Your task to perform on an android device: visit the assistant section in the google photos Image 0: 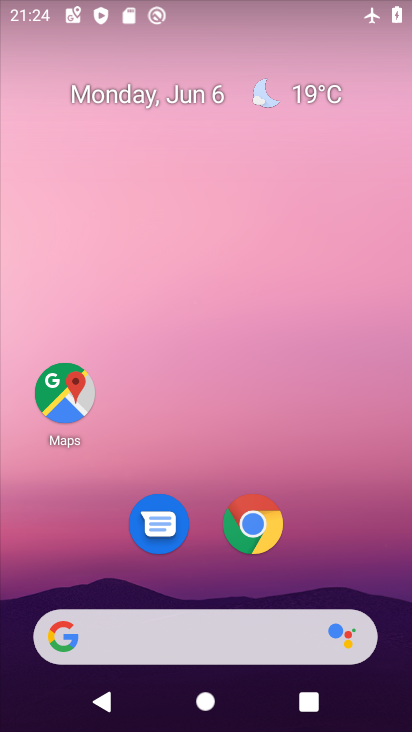
Step 0: drag from (325, 530) to (354, 0)
Your task to perform on an android device: visit the assistant section in the google photos Image 1: 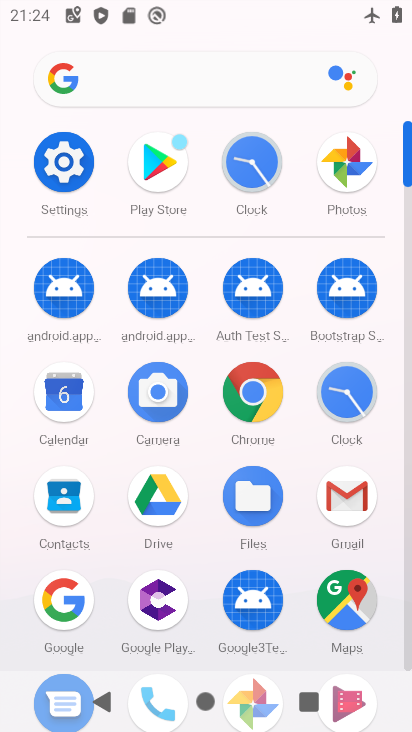
Step 1: click (340, 152)
Your task to perform on an android device: visit the assistant section in the google photos Image 2: 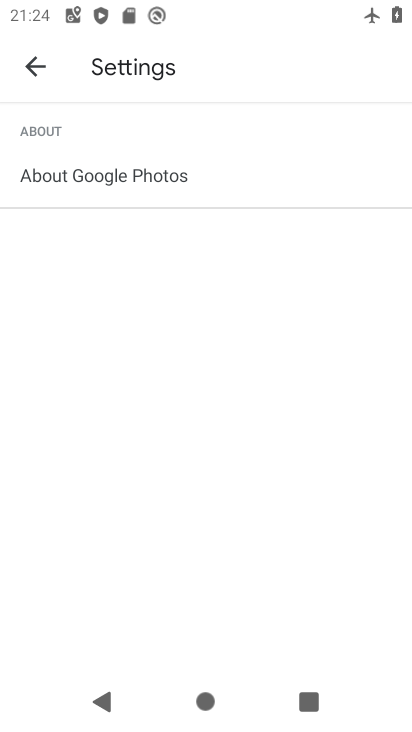
Step 2: click (45, 70)
Your task to perform on an android device: visit the assistant section in the google photos Image 3: 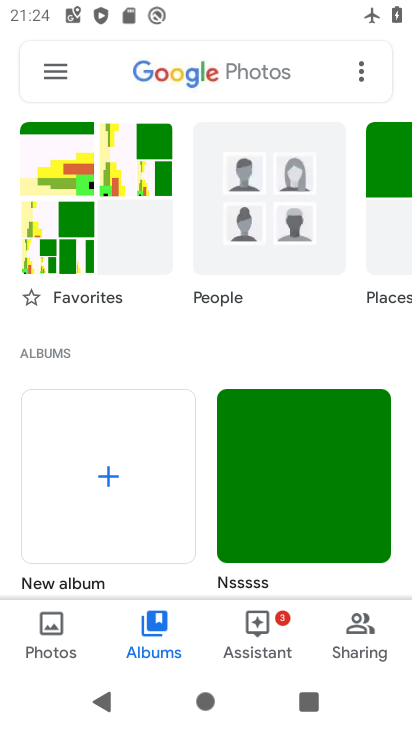
Step 3: click (252, 621)
Your task to perform on an android device: visit the assistant section in the google photos Image 4: 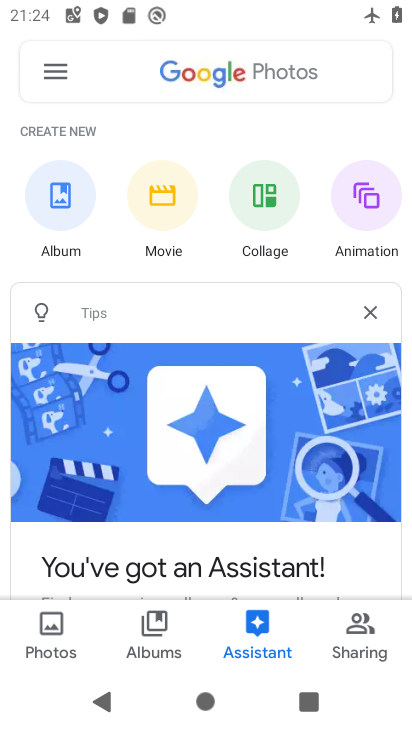
Step 4: task complete